Your task to perform on an android device: visit the assistant section in the google photos Image 0: 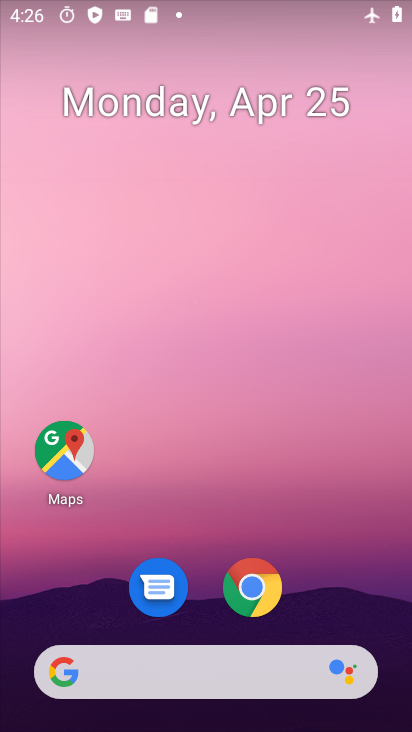
Step 0: drag from (343, 574) to (289, 68)
Your task to perform on an android device: visit the assistant section in the google photos Image 1: 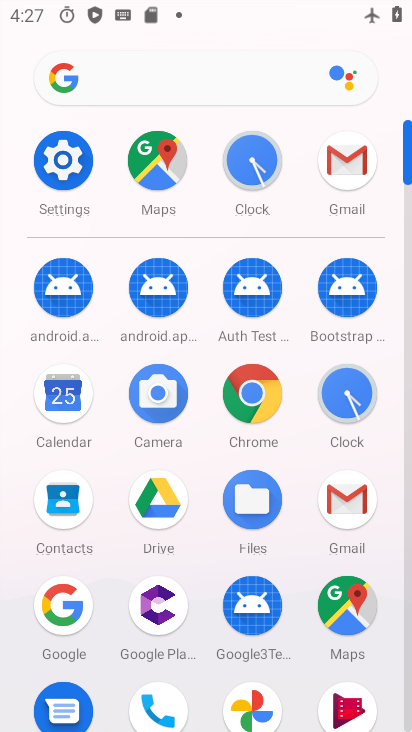
Step 1: click (260, 710)
Your task to perform on an android device: visit the assistant section in the google photos Image 2: 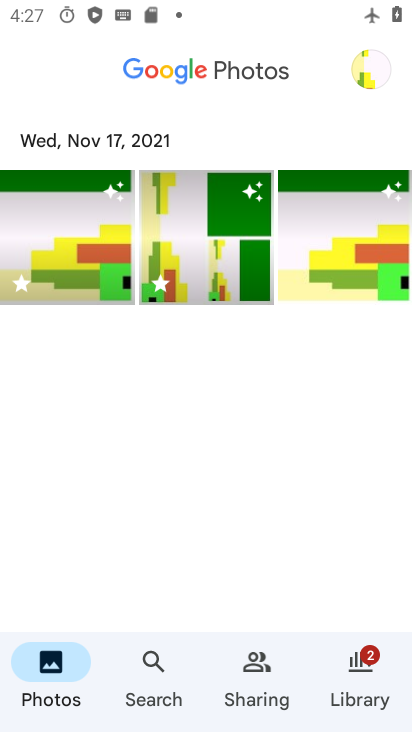
Step 2: click (351, 667)
Your task to perform on an android device: visit the assistant section in the google photos Image 3: 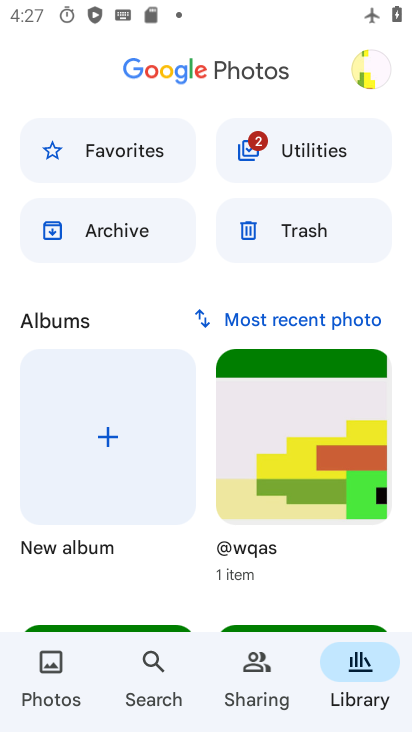
Step 3: click (252, 670)
Your task to perform on an android device: visit the assistant section in the google photos Image 4: 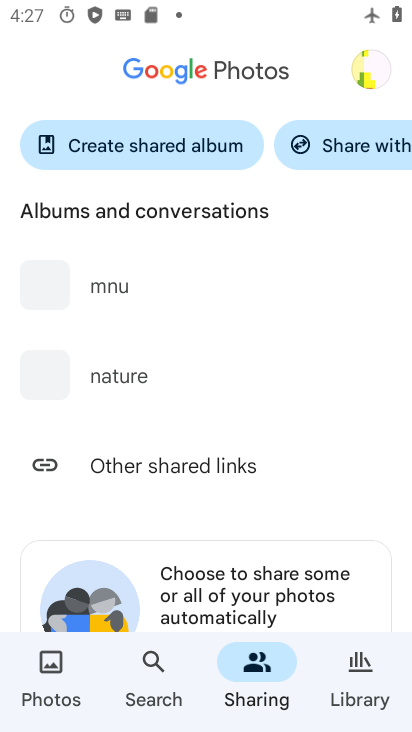
Step 4: click (59, 656)
Your task to perform on an android device: visit the assistant section in the google photos Image 5: 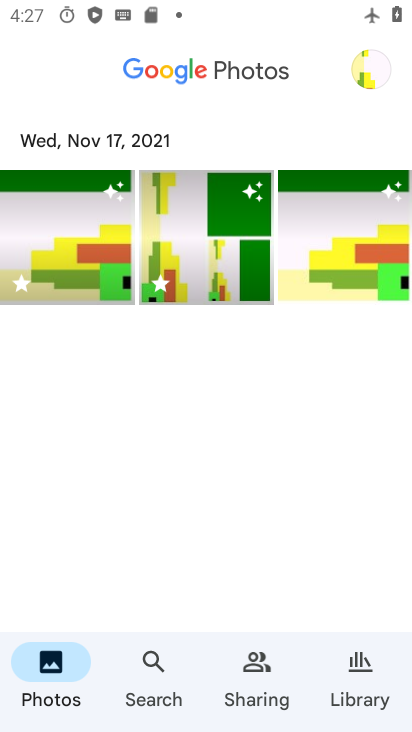
Step 5: click (378, 716)
Your task to perform on an android device: visit the assistant section in the google photos Image 6: 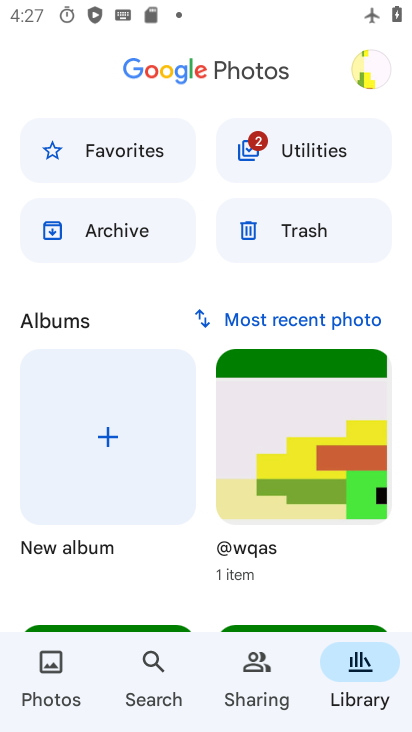
Step 6: task complete